Your task to perform on an android device: turn off location Image 0: 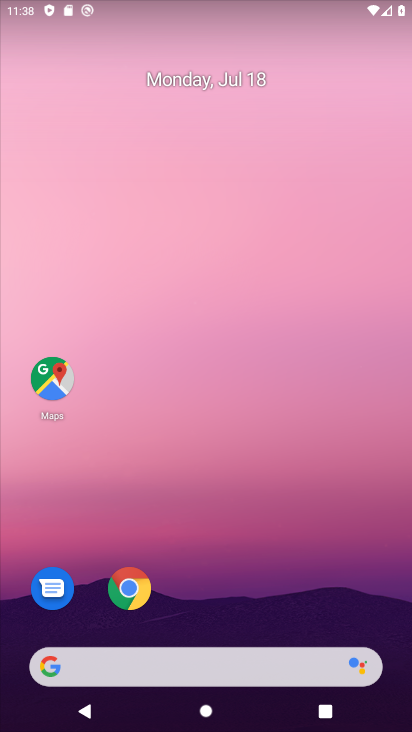
Step 0: drag from (178, 163) to (166, 96)
Your task to perform on an android device: turn off location Image 1: 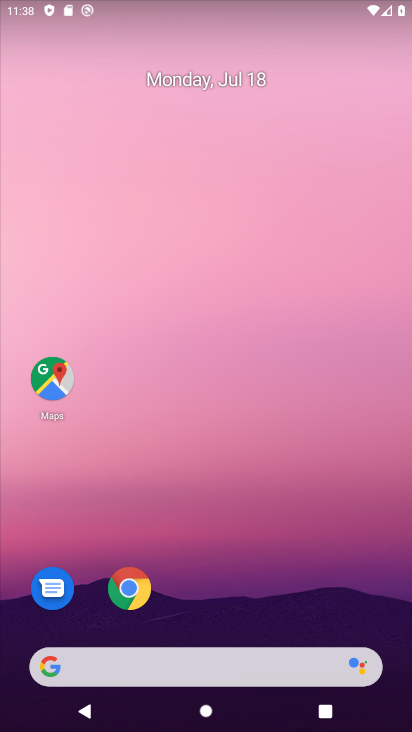
Step 1: drag from (189, 450) to (151, 42)
Your task to perform on an android device: turn off location Image 2: 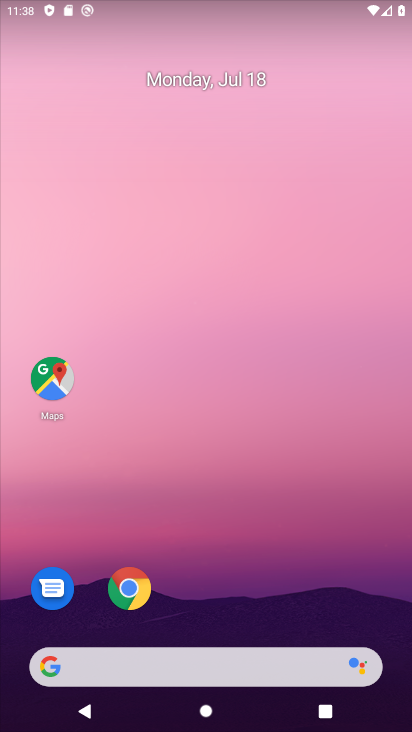
Step 2: drag from (267, 440) to (95, 36)
Your task to perform on an android device: turn off location Image 3: 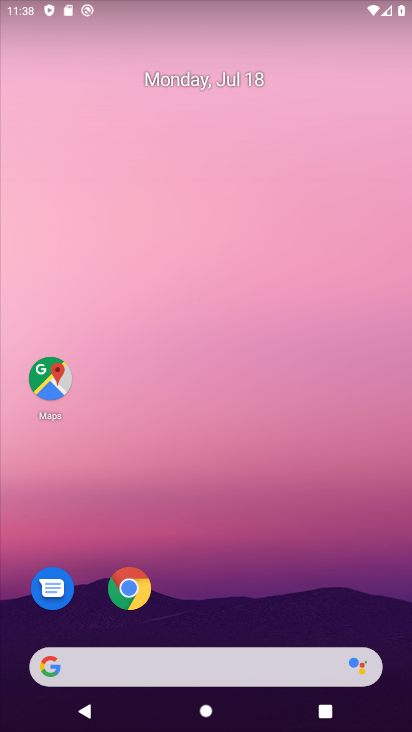
Step 3: drag from (211, 572) to (166, 61)
Your task to perform on an android device: turn off location Image 4: 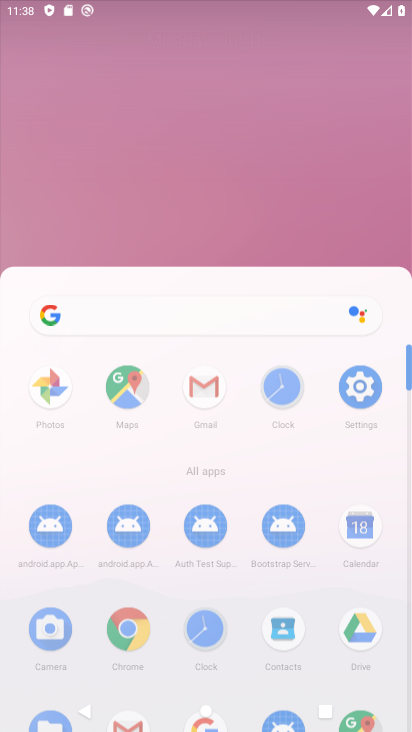
Step 4: click (210, 8)
Your task to perform on an android device: turn off location Image 5: 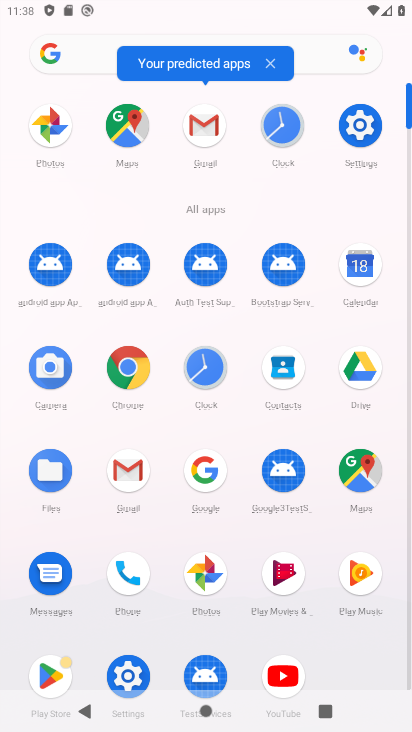
Step 5: click (367, 133)
Your task to perform on an android device: turn off location Image 6: 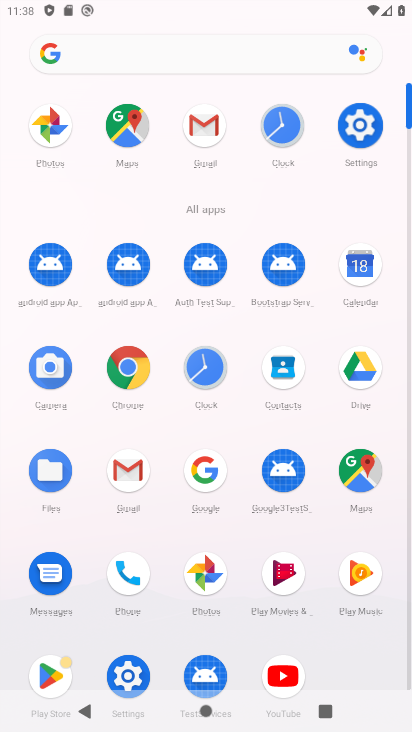
Step 6: click (367, 132)
Your task to perform on an android device: turn off location Image 7: 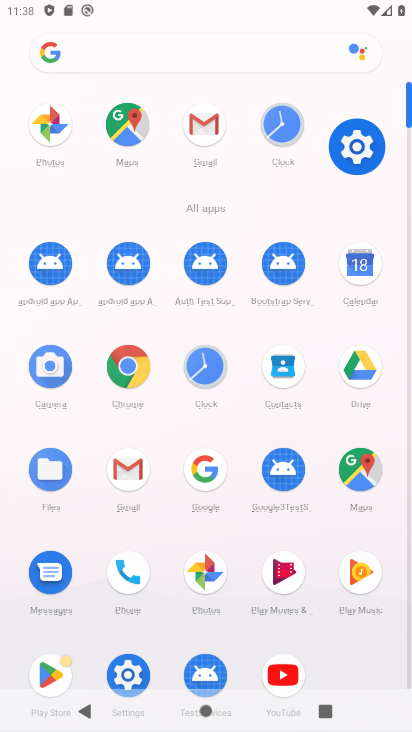
Step 7: click (362, 135)
Your task to perform on an android device: turn off location Image 8: 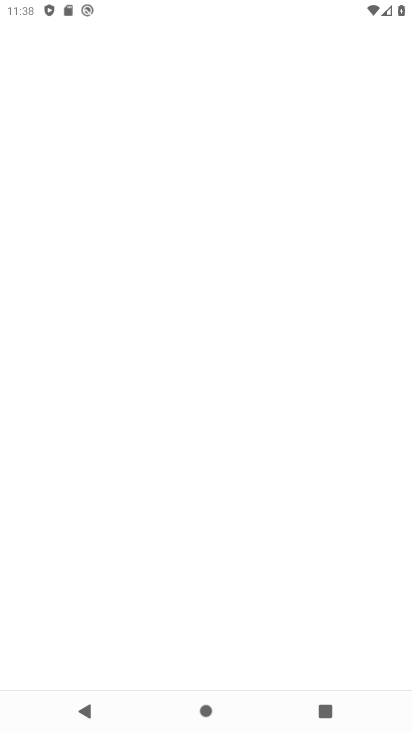
Step 8: click (362, 145)
Your task to perform on an android device: turn off location Image 9: 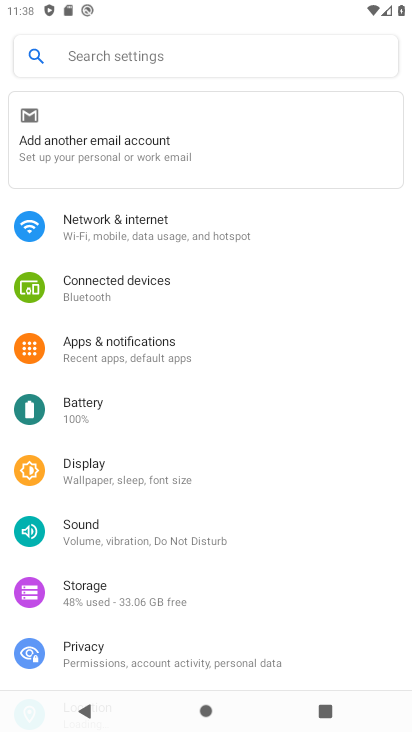
Step 9: click (80, 606)
Your task to perform on an android device: turn off location Image 10: 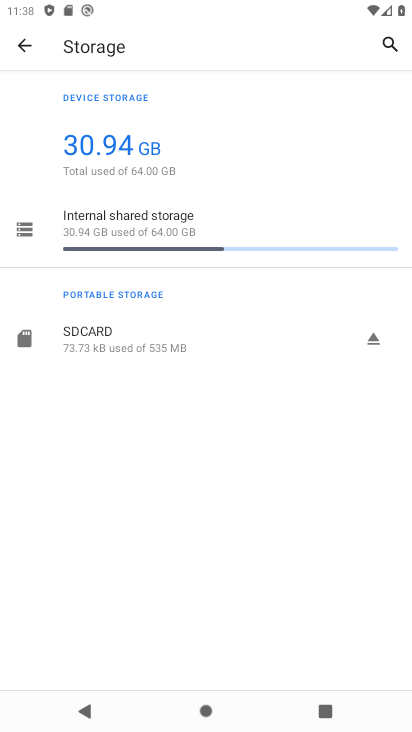
Step 10: click (21, 47)
Your task to perform on an android device: turn off location Image 11: 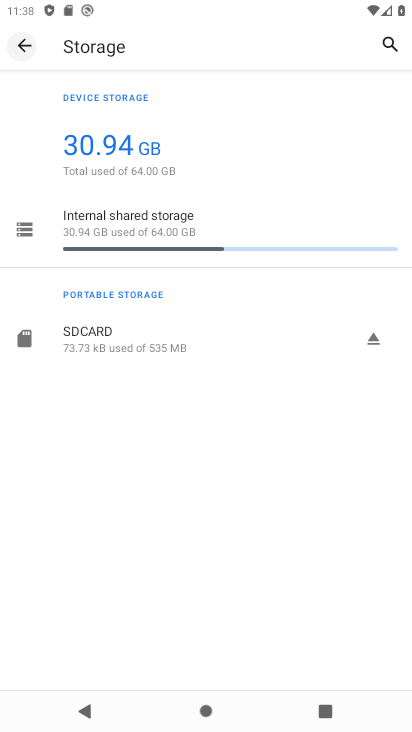
Step 11: click (23, 48)
Your task to perform on an android device: turn off location Image 12: 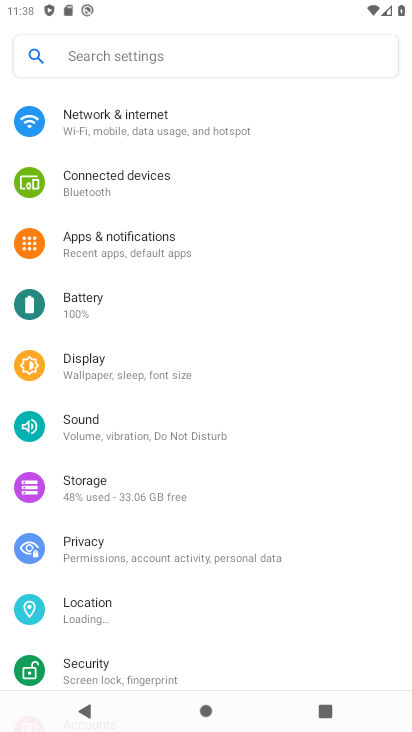
Step 12: click (79, 606)
Your task to perform on an android device: turn off location Image 13: 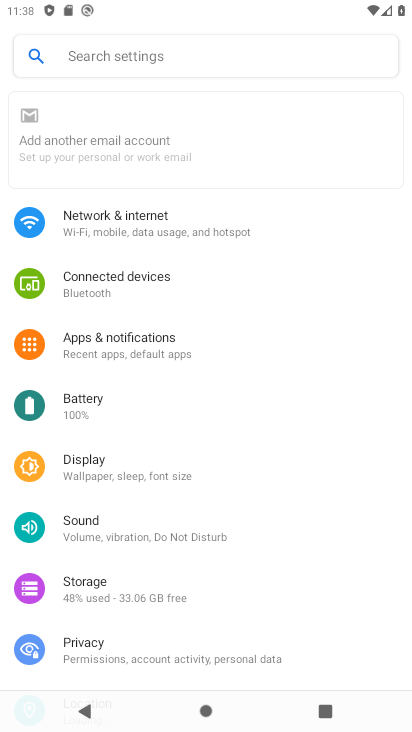
Step 13: click (91, 601)
Your task to perform on an android device: turn off location Image 14: 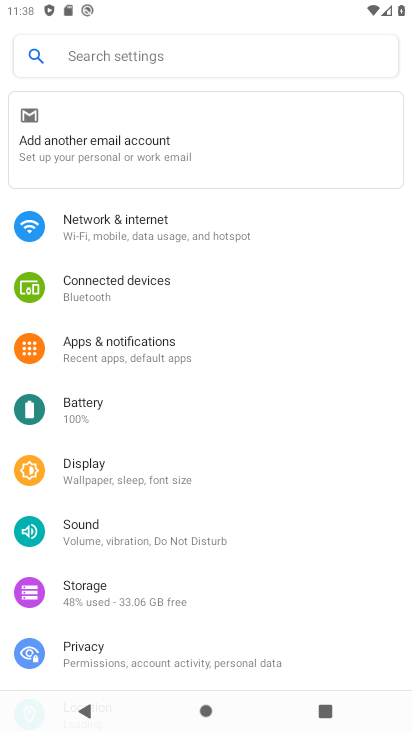
Step 14: click (137, 604)
Your task to perform on an android device: turn off location Image 15: 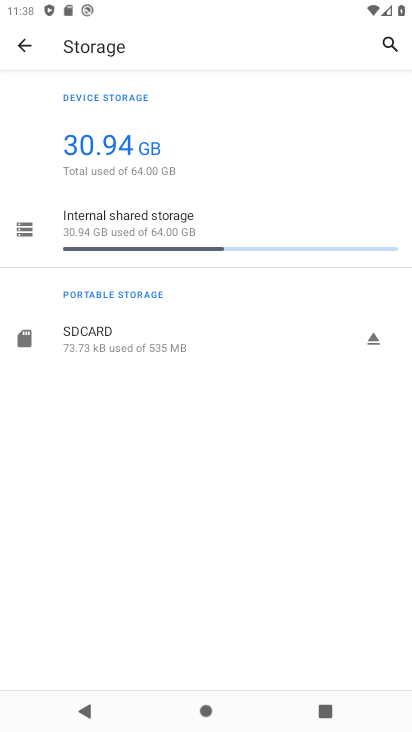
Step 15: click (21, 38)
Your task to perform on an android device: turn off location Image 16: 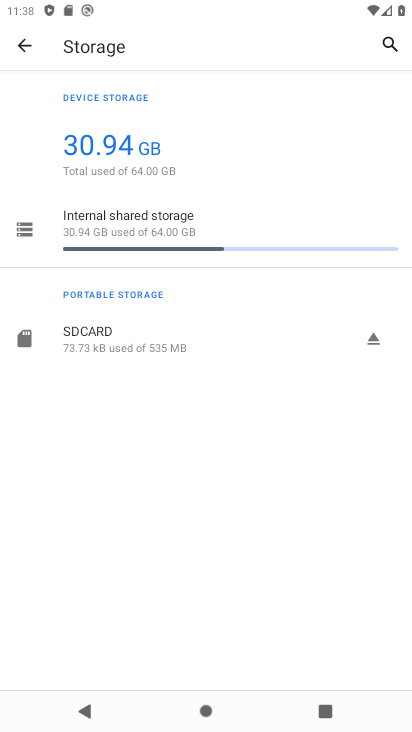
Step 16: click (22, 43)
Your task to perform on an android device: turn off location Image 17: 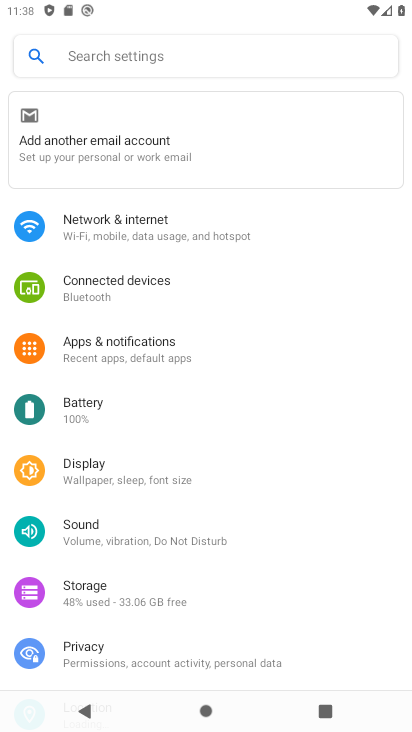
Step 17: click (82, 611)
Your task to perform on an android device: turn off location Image 18: 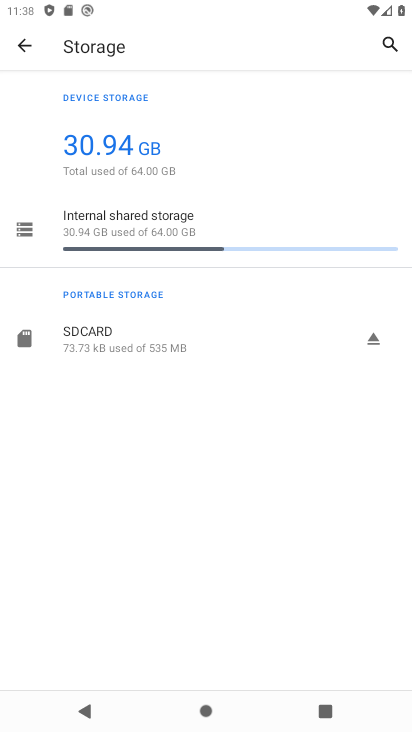
Step 18: click (18, 46)
Your task to perform on an android device: turn off location Image 19: 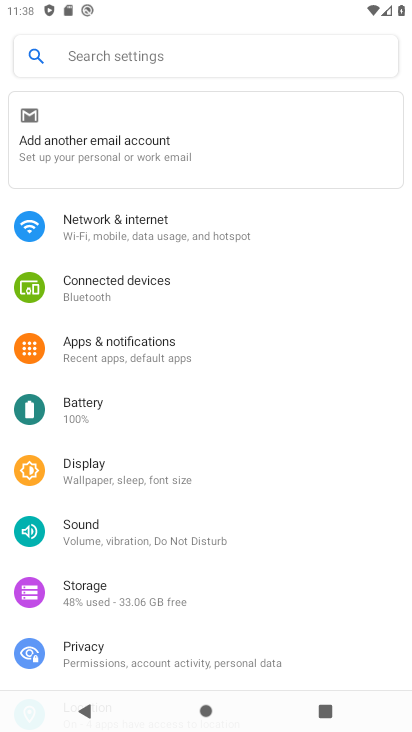
Step 19: drag from (132, 579) to (98, 229)
Your task to perform on an android device: turn off location Image 20: 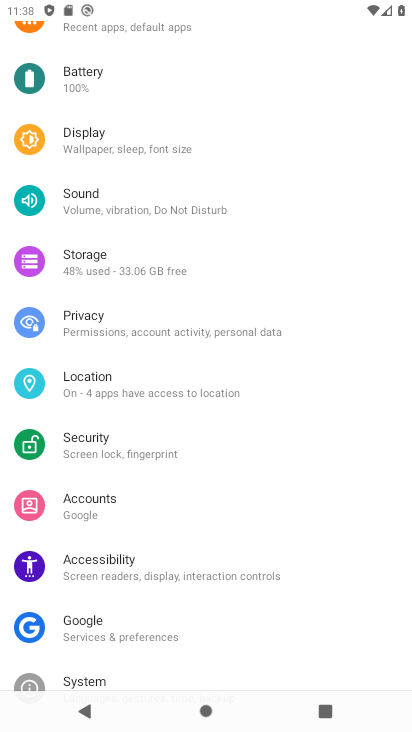
Step 20: click (92, 373)
Your task to perform on an android device: turn off location Image 21: 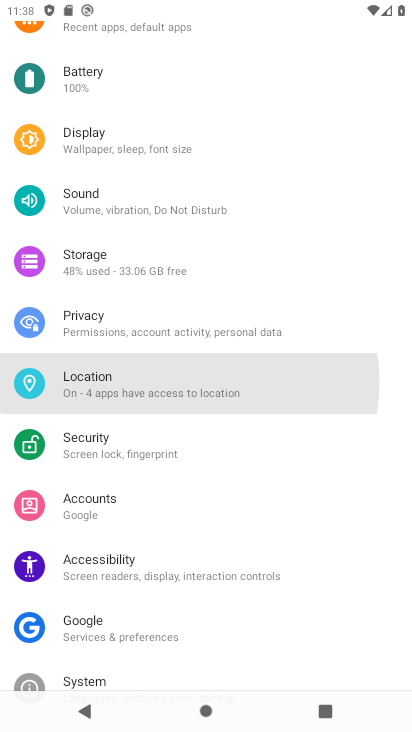
Step 21: click (93, 379)
Your task to perform on an android device: turn off location Image 22: 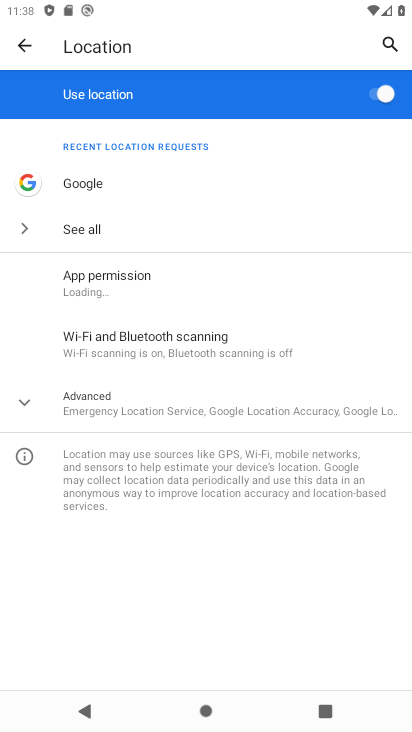
Step 22: click (369, 93)
Your task to perform on an android device: turn off location Image 23: 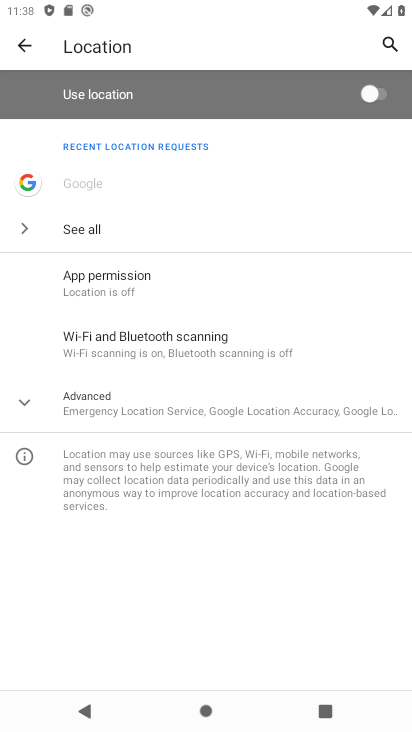
Step 23: task complete